Your task to perform on an android device: toggle show notifications on the lock screen Image 0: 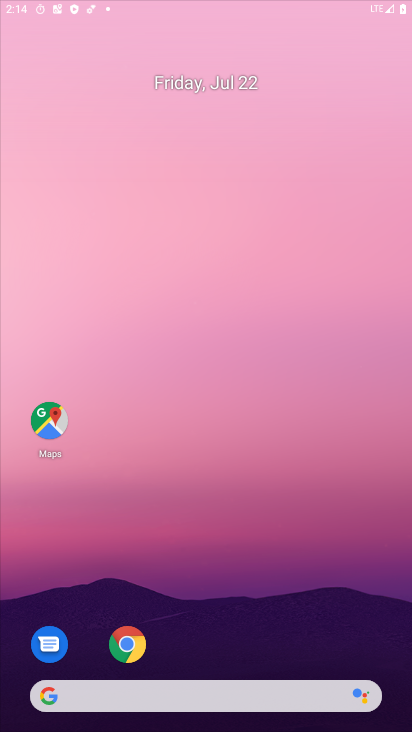
Step 0: click (299, 81)
Your task to perform on an android device: toggle show notifications on the lock screen Image 1: 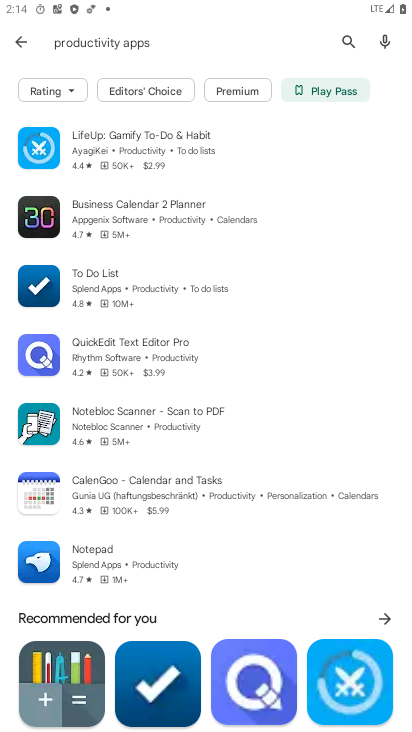
Step 1: press home button
Your task to perform on an android device: toggle show notifications on the lock screen Image 2: 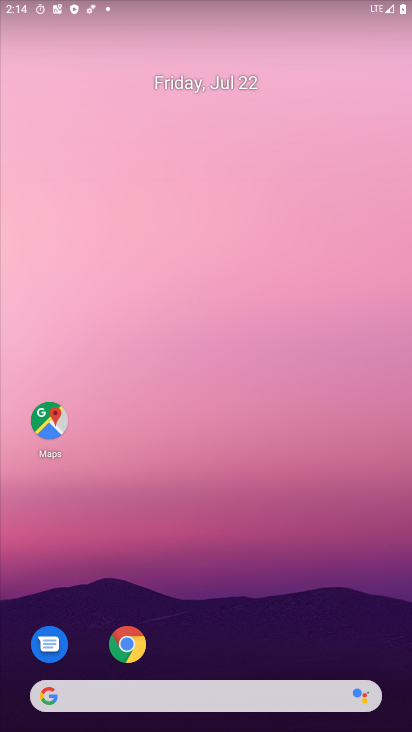
Step 2: drag from (174, 579) to (223, 126)
Your task to perform on an android device: toggle show notifications on the lock screen Image 3: 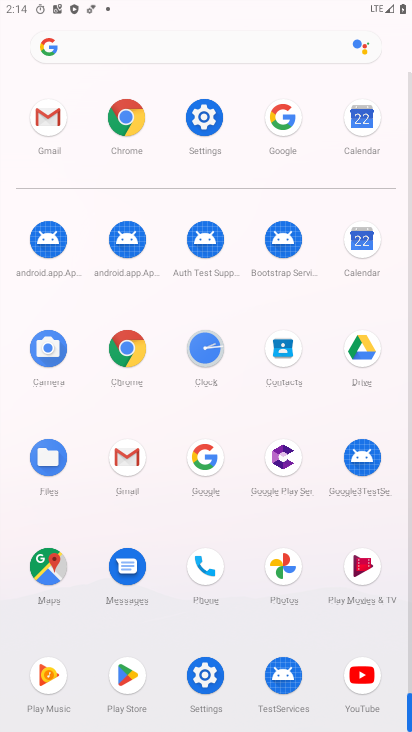
Step 3: click (203, 142)
Your task to perform on an android device: toggle show notifications on the lock screen Image 4: 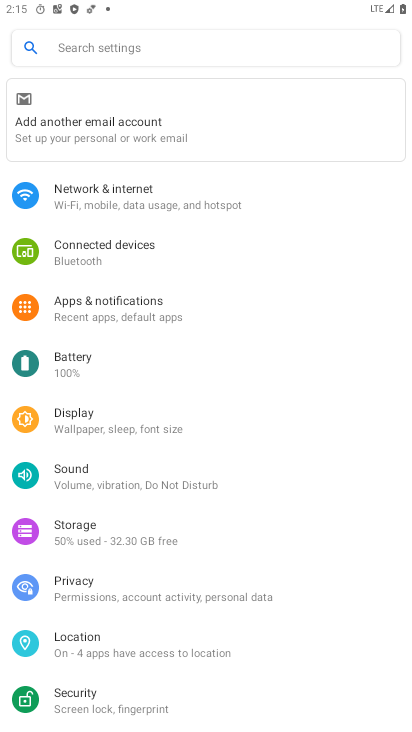
Step 4: click (125, 302)
Your task to perform on an android device: toggle show notifications on the lock screen Image 5: 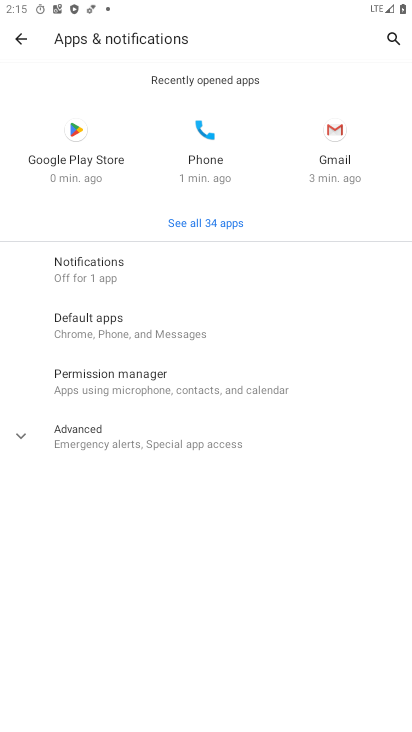
Step 5: click (104, 268)
Your task to perform on an android device: toggle show notifications on the lock screen Image 6: 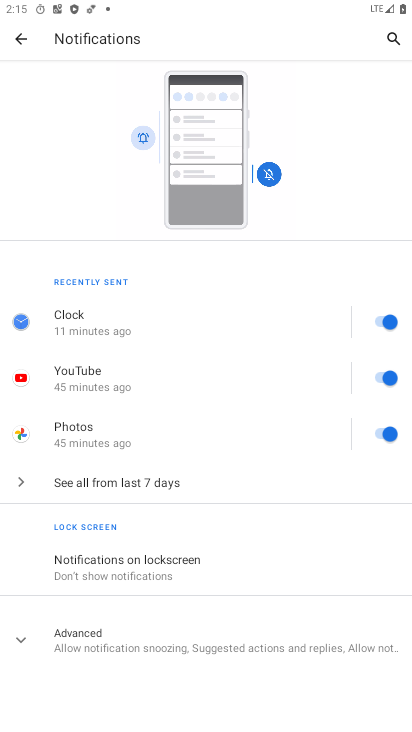
Step 6: click (146, 577)
Your task to perform on an android device: toggle show notifications on the lock screen Image 7: 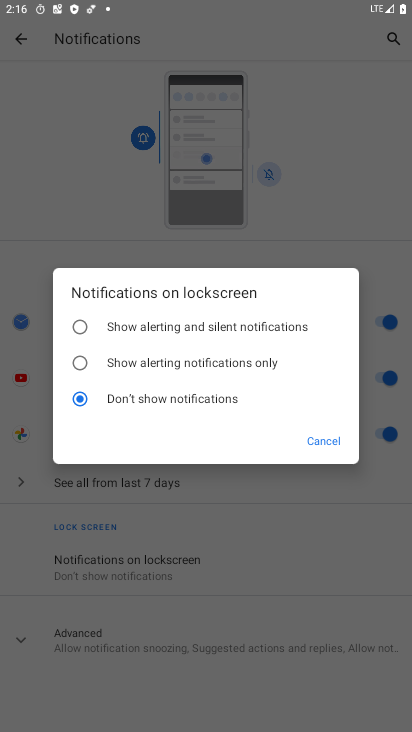
Step 7: click (98, 318)
Your task to perform on an android device: toggle show notifications on the lock screen Image 8: 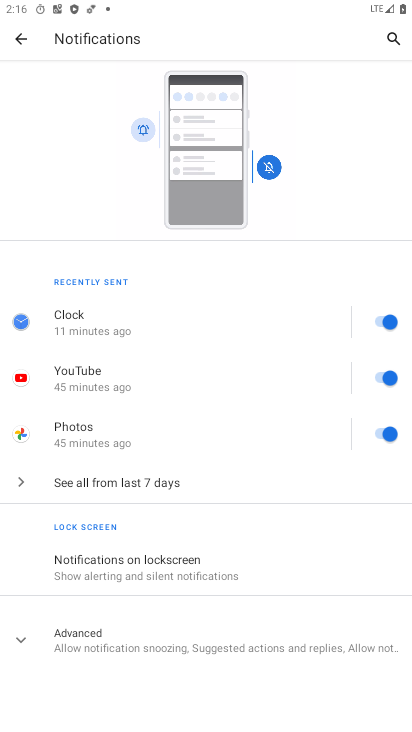
Step 8: task complete